Your task to perform on an android device: Search for Italian restaurants on Maps Image 0: 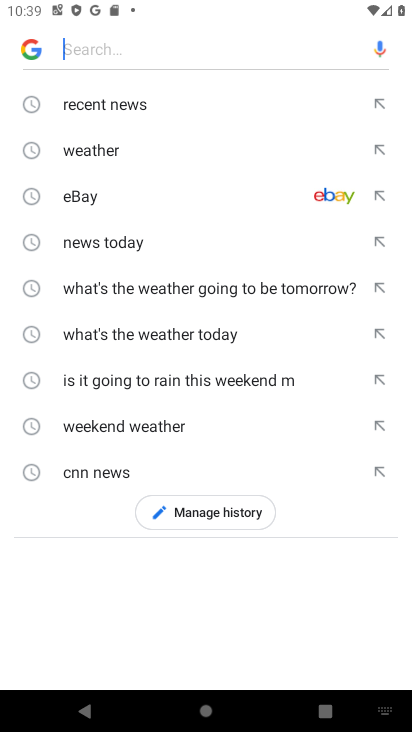
Step 0: press home button
Your task to perform on an android device: Search for Italian restaurants on Maps Image 1: 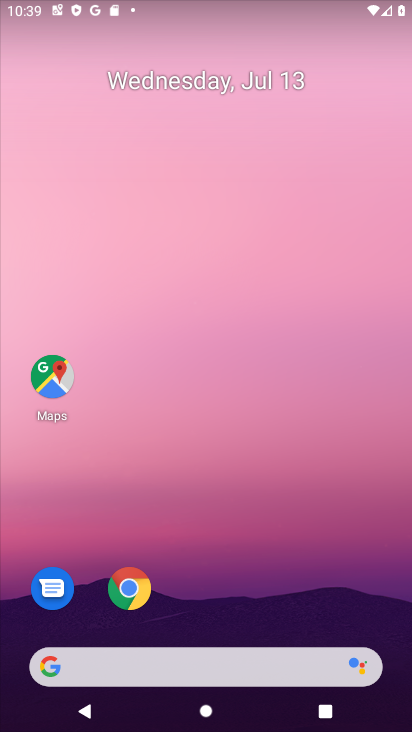
Step 1: click (50, 373)
Your task to perform on an android device: Search for Italian restaurants on Maps Image 2: 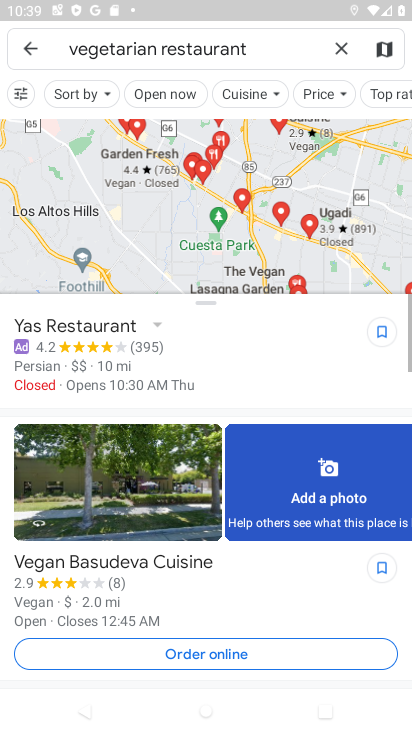
Step 2: click (332, 46)
Your task to perform on an android device: Search for Italian restaurants on Maps Image 3: 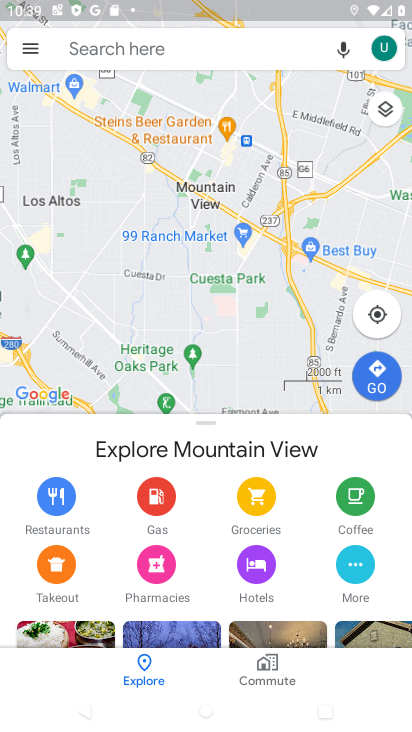
Step 3: click (216, 49)
Your task to perform on an android device: Search for Italian restaurants on Maps Image 4: 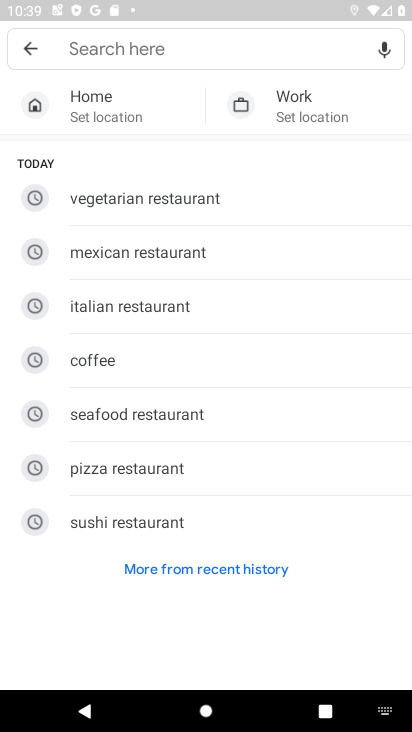
Step 4: click (208, 306)
Your task to perform on an android device: Search for Italian restaurants on Maps Image 5: 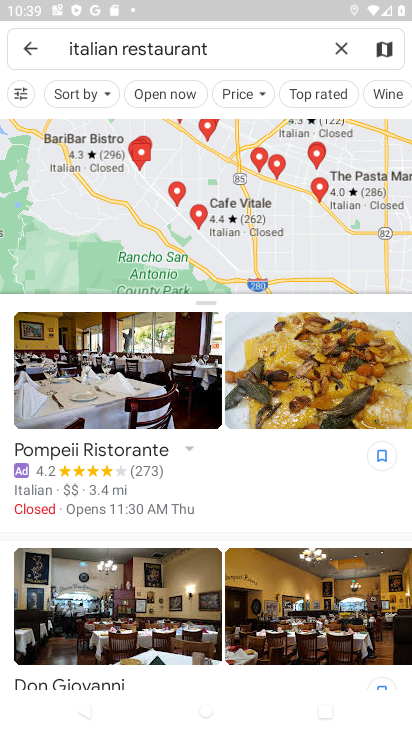
Step 5: task complete